Your task to perform on an android device: Open Yahoo.com Image 0: 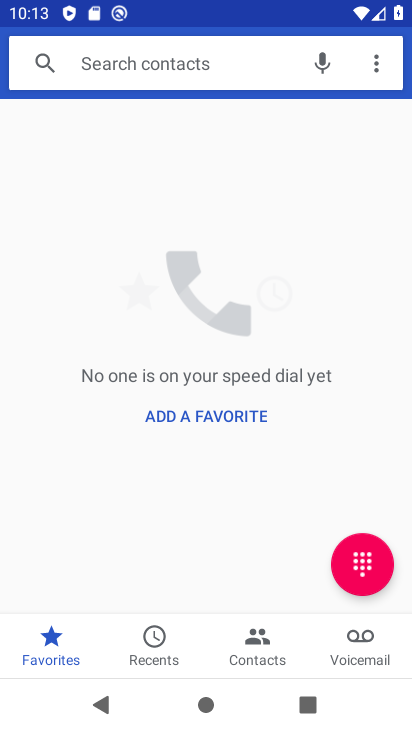
Step 0: press home button
Your task to perform on an android device: Open Yahoo.com Image 1: 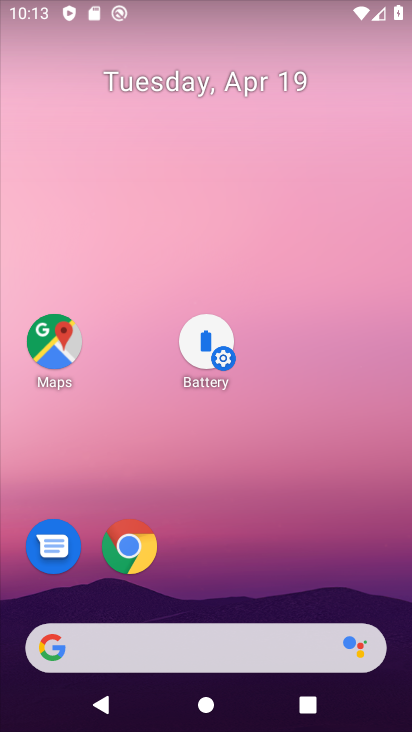
Step 1: click (140, 548)
Your task to perform on an android device: Open Yahoo.com Image 2: 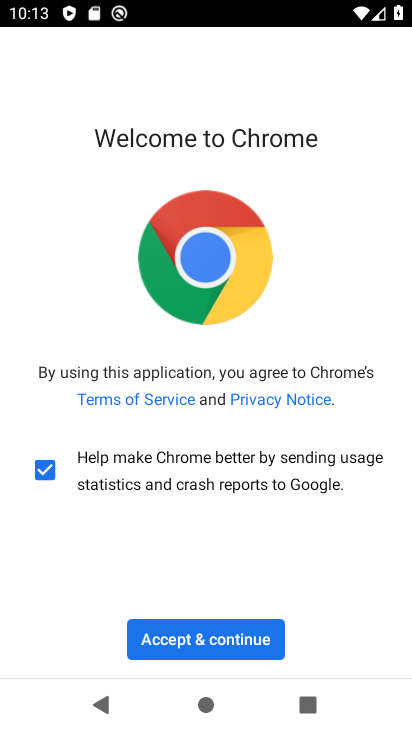
Step 2: click (215, 622)
Your task to perform on an android device: Open Yahoo.com Image 3: 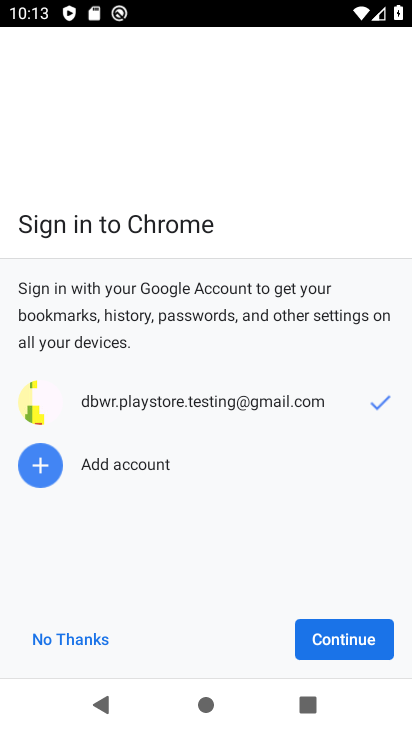
Step 3: click (366, 637)
Your task to perform on an android device: Open Yahoo.com Image 4: 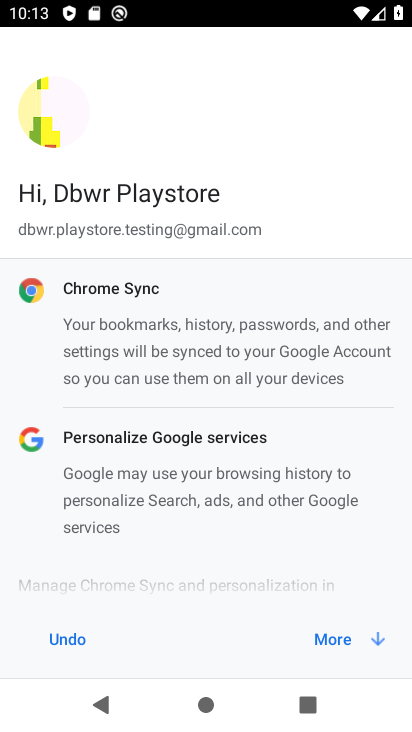
Step 4: click (335, 643)
Your task to perform on an android device: Open Yahoo.com Image 5: 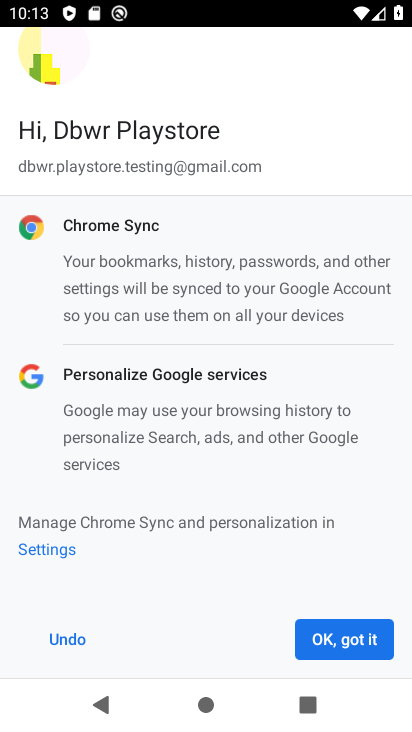
Step 5: click (335, 642)
Your task to perform on an android device: Open Yahoo.com Image 6: 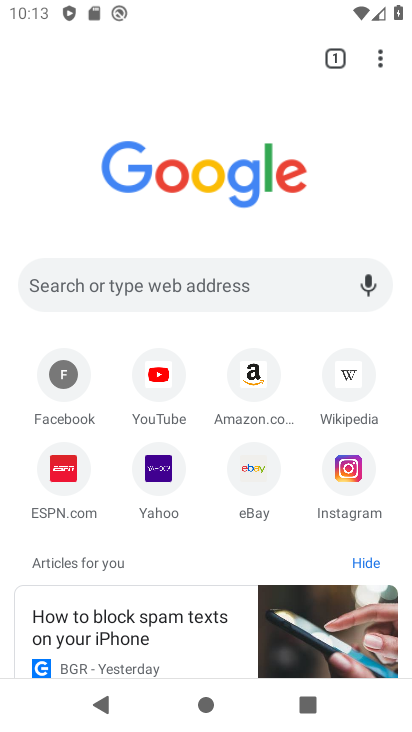
Step 6: click (162, 467)
Your task to perform on an android device: Open Yahoo.com Image 7: 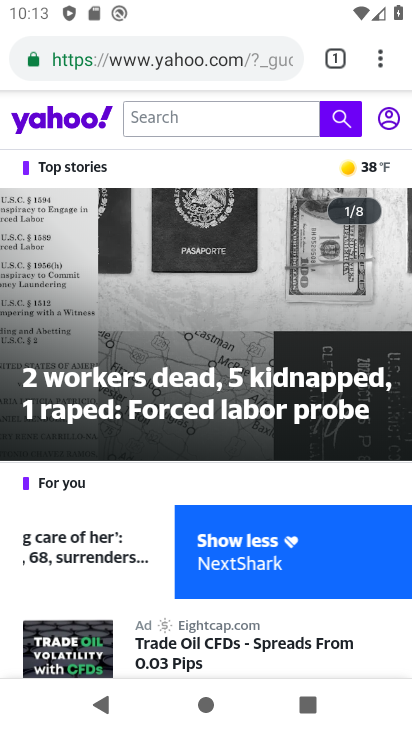
Step 7: task complete